Your task to perform on an android device: toggle notification dots Image 0: 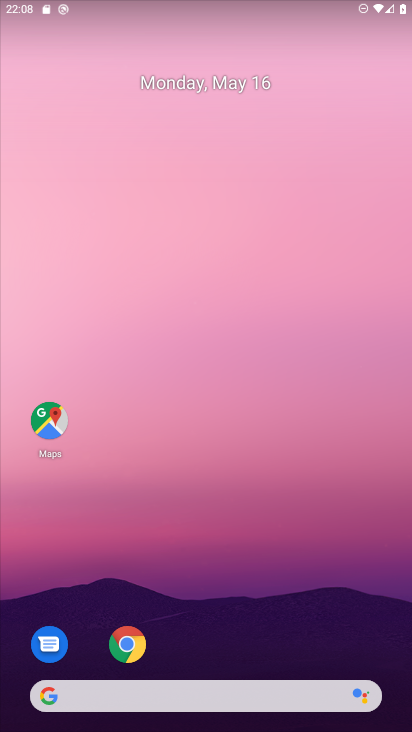
Step 0: drag from (34, 653) to (341, 101)
Your task to perform on an android device: toggle notification dots Image 1: 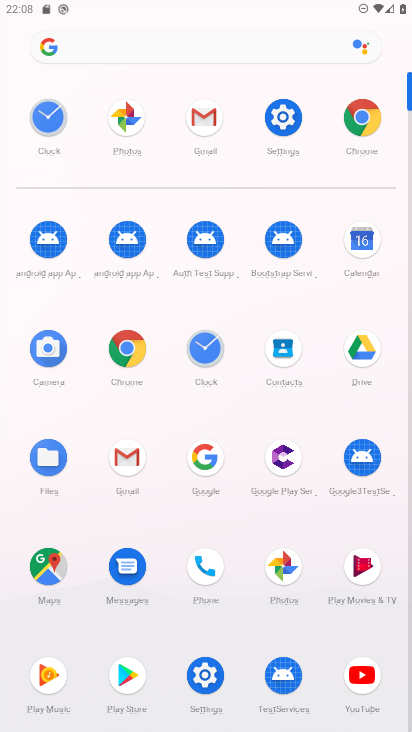
Step 1: click (288, 121)
Your task to perform on an android device: toggle notification dots Image 2: 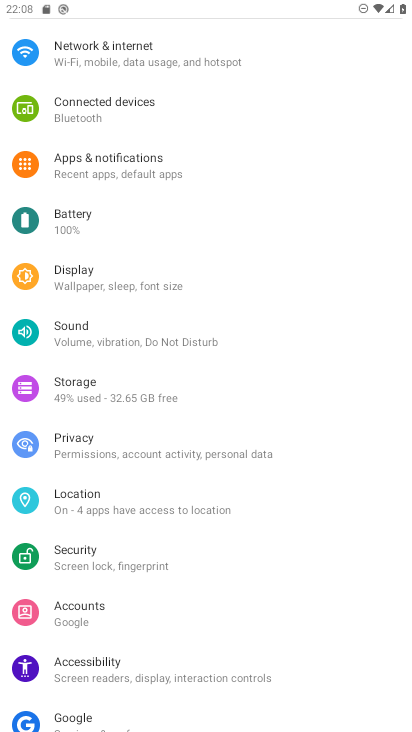
Step 2: click (143, 161)
Your task to perform on an android device: toggle notification dots Image 3: 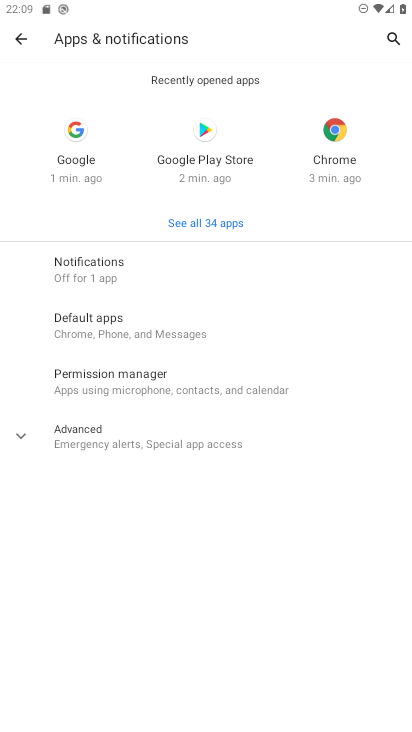
Step 3: click (129, 270)
Your task to perform on an android device: toggle notification dots Image 4: 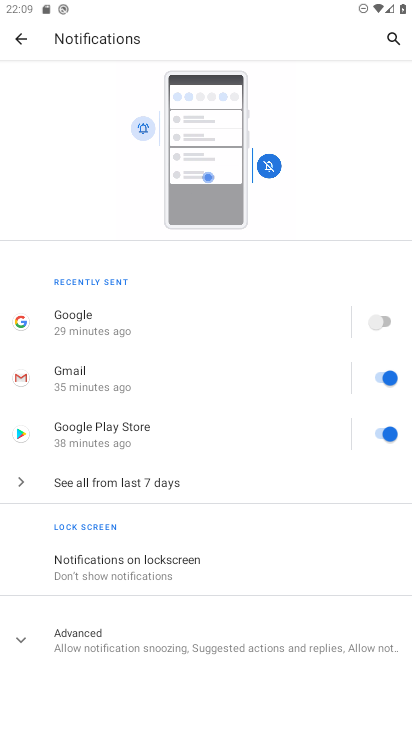
Step 4: drag from (229, 613) to (293, 175)
Your task to perform on an android device: toggle notification dots Image 5: 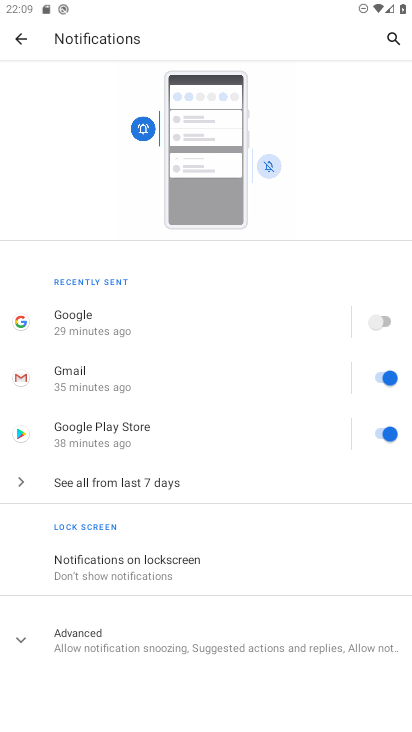
Step 5: drag from (117, 631) to (260, 162)
Your task to perform on an android device: toggle notification dots Image 6: 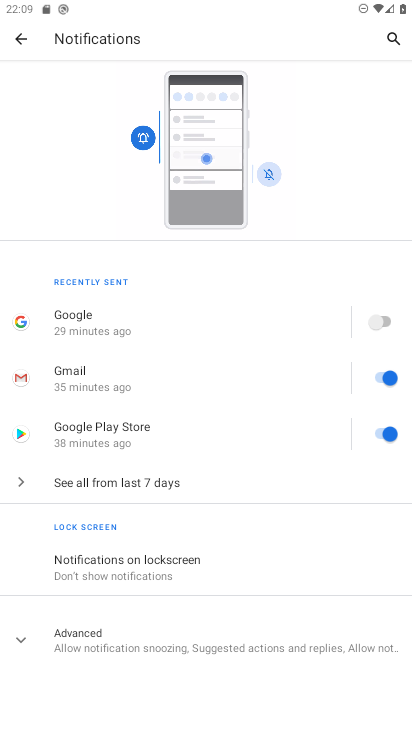
Step 6: click (87, 640)
Your task to perform on an android device: toggle notification dots Image 7: 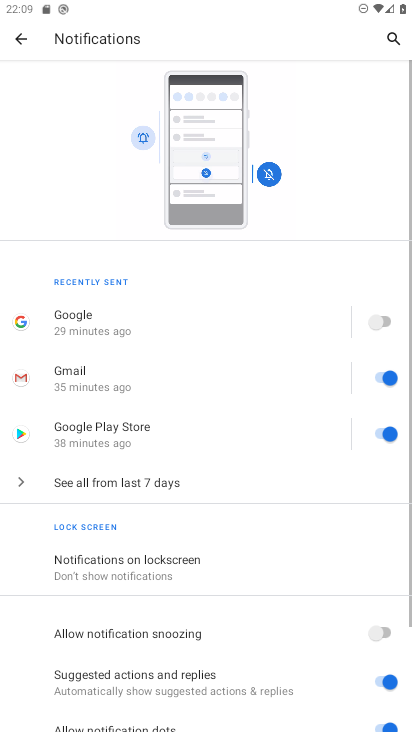
Step 7: drag from (87, 639) to (220, 201)
Your task to perform on an android device: toggle notification dots Image 8: 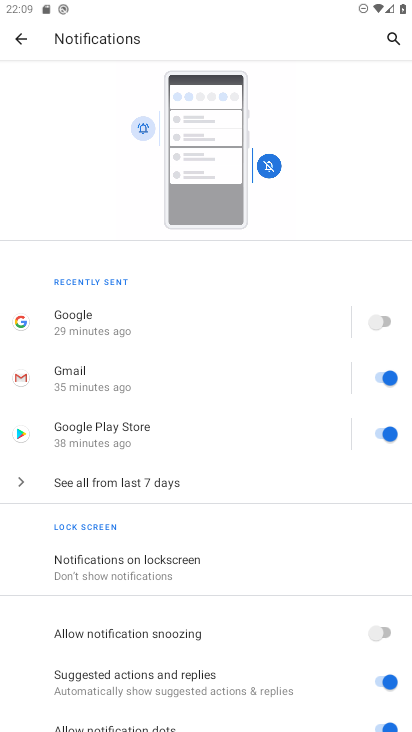
Step 8: drag from (41, 660) to (203, 300)
Your task to perform on an android device: toggle notification dots Image 9: 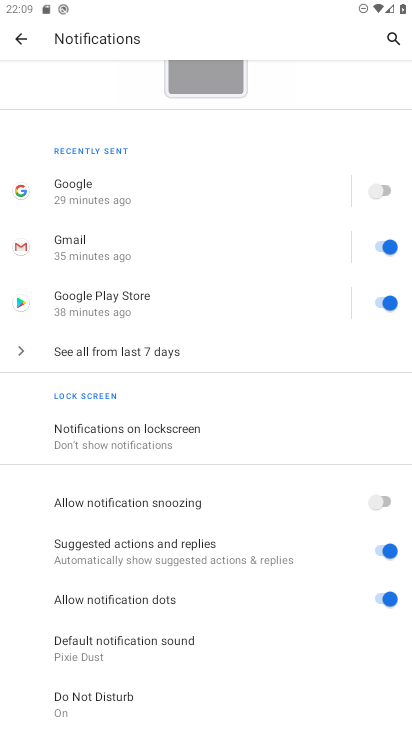
Step 9: click (395, 604)
Your task to perform on an android device: toggle notification dots Image 10: 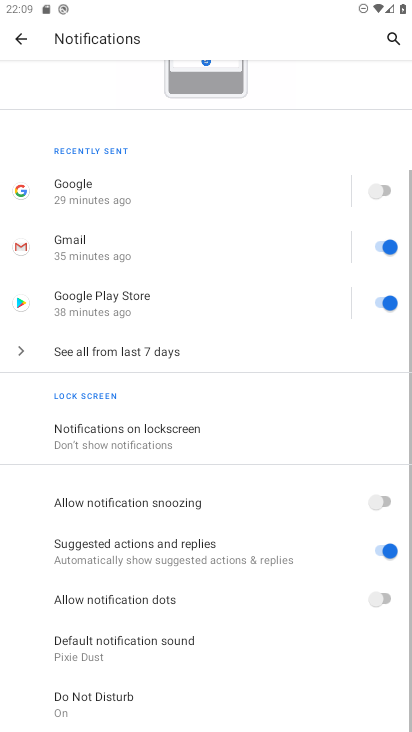
Step 10: task complete